Your task to perform on an android device: What is the news today? Image 0: 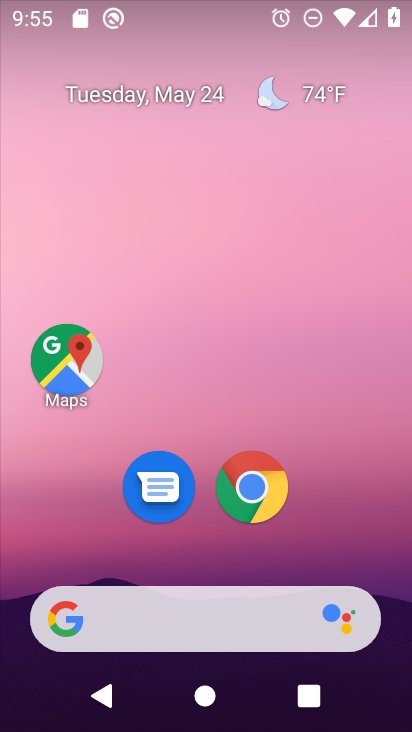
Step 0: click (124, 621)
Your task to perform on an android device: What is the news today? Image 1: 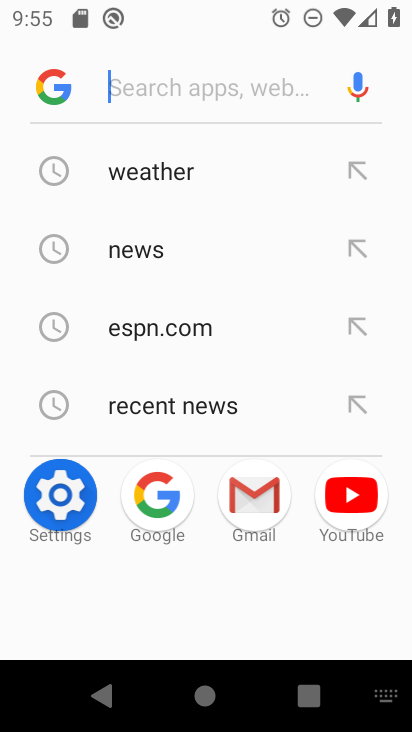
Step 1: click (133, 86)
Your task to perform on an android device: What is the news today? Image 2: 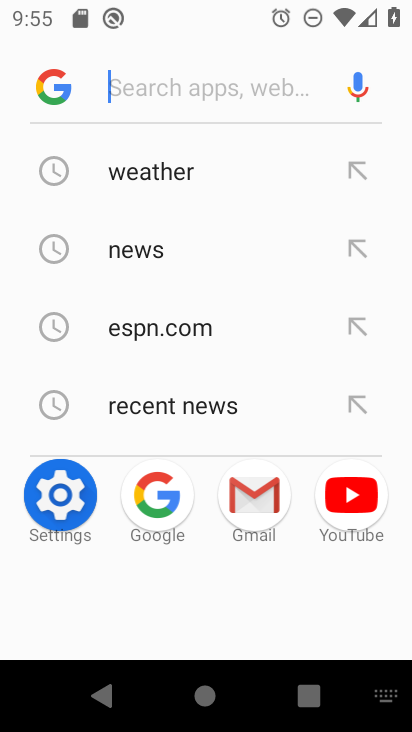
Step 2: type "news today"
Your task to perform on an android device: What is the news today? Image 3: 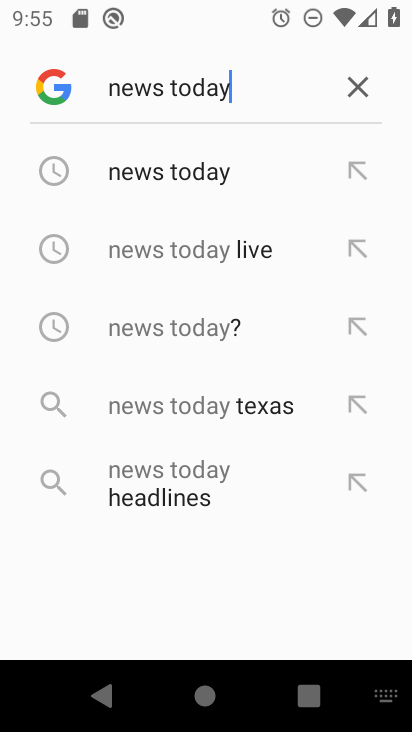
Step 3: click (167, 175)
Your task to perform on an android device: What is the news today? Image 4: 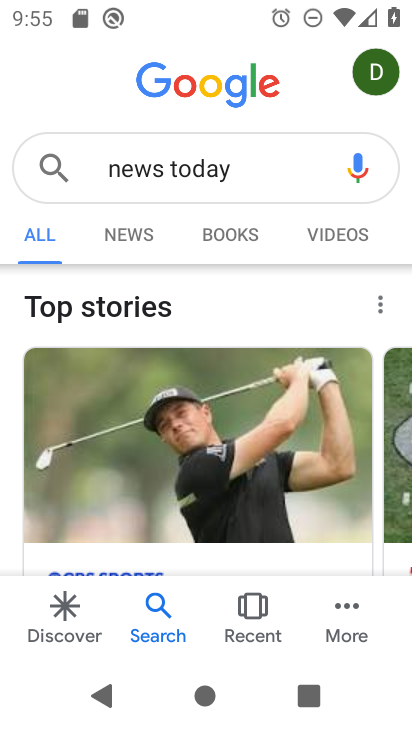
Step 4: drag from (174, 490) to (182, 194)
Your task to perform on an android device: What is the news today? Image 5: 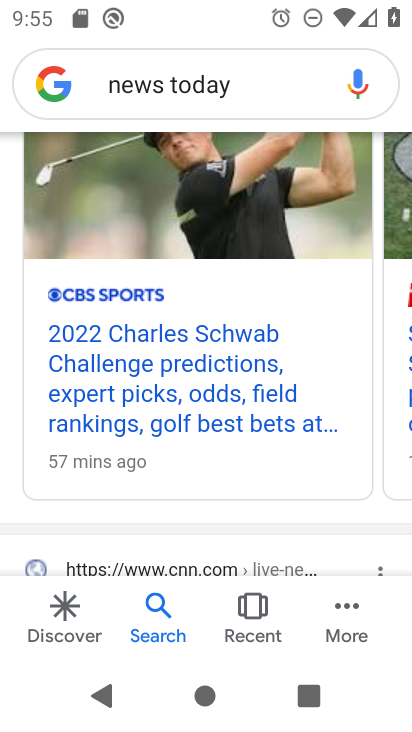
Step 5: click (214, 200)
Your task to perform on an android device: What is the news today? Image 6: 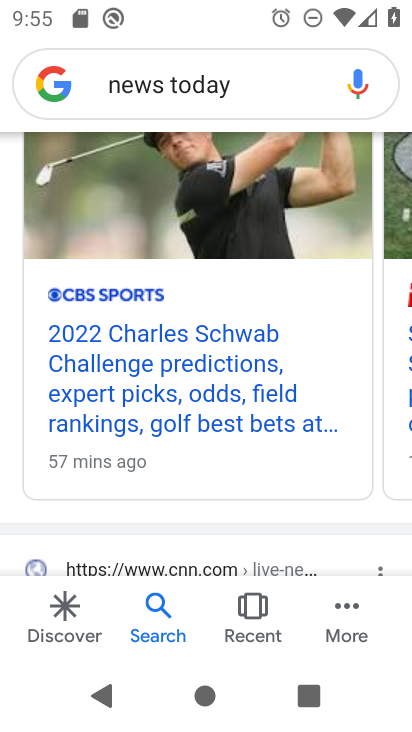
Step 6: click (200, 321)
Your task to perform on an android device: What is the news today? Image 7: 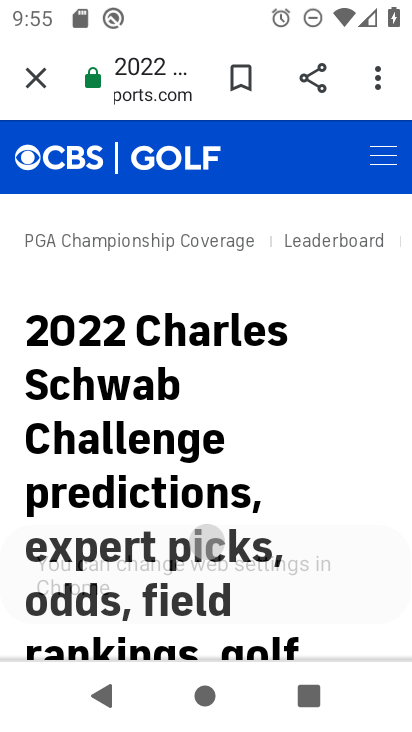
Step 7: task complete